Your task to perform on an android device: Clear all items from cart on walmart. Add acer nitro to the cart on walmart, then select checkout. Image 0: 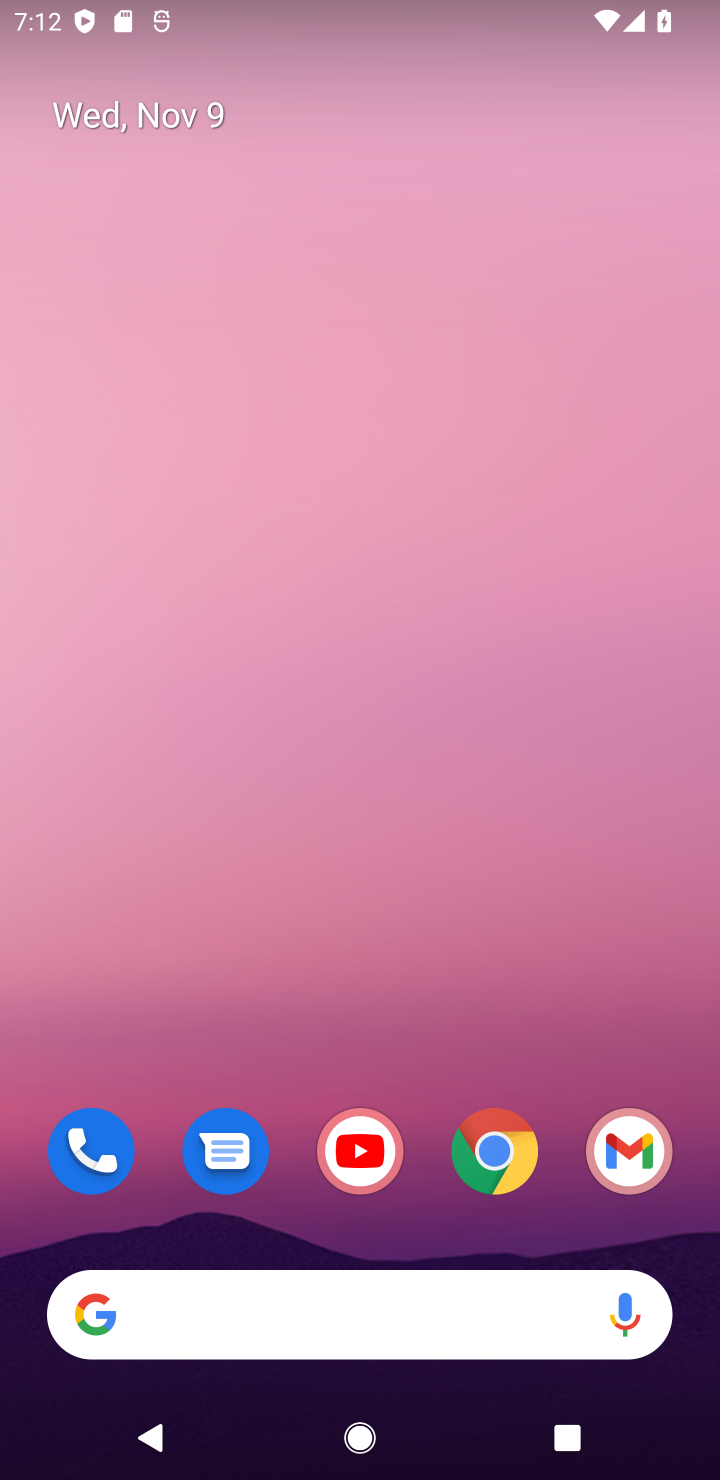
Step 0: drag from (547, 722) to (644, 234)
Your task to perform on an android device: Clear all items from cart on walmart. Add acer nitro to the cart on walmart, then select checkout. Image 1: 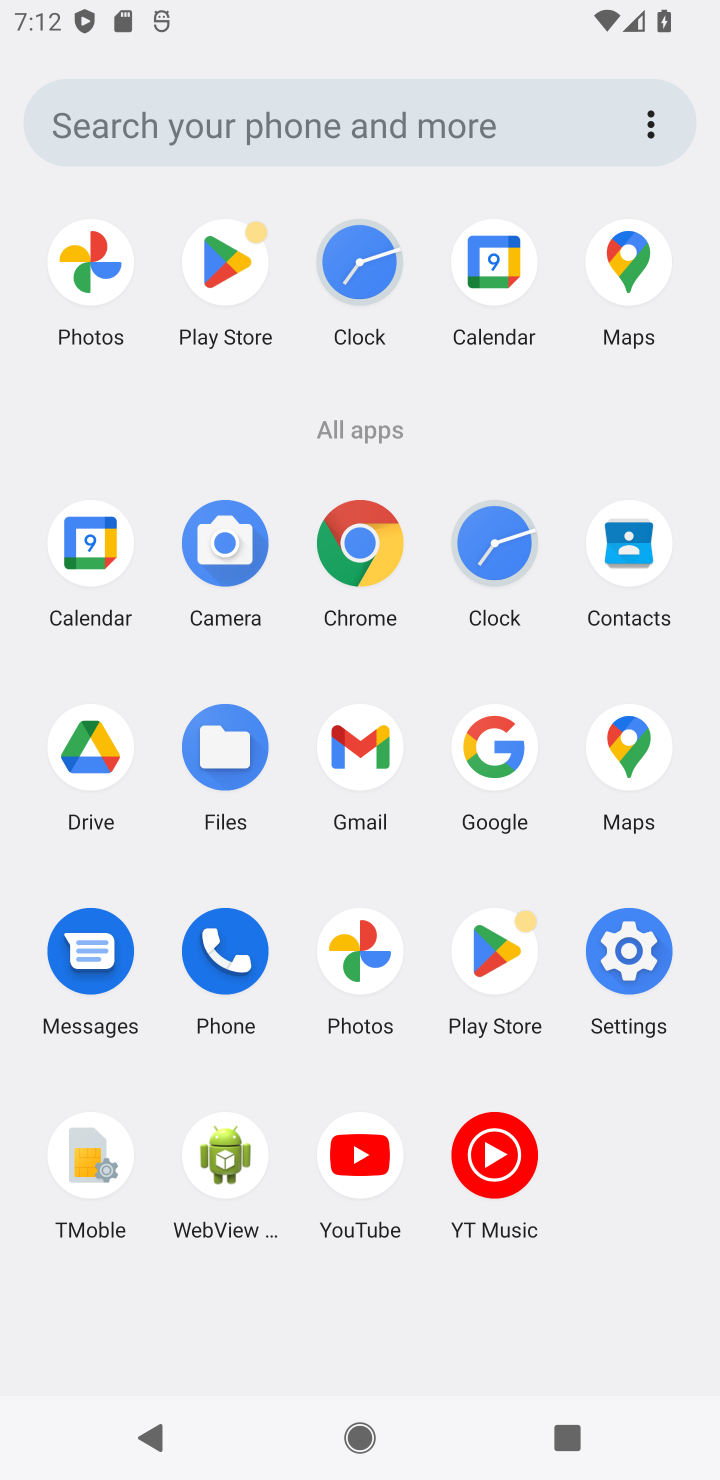
Step 1: click (356, 562)
Your task to perform on an android device: Clear all items from cart on walmart. Add acer nitro to the cart on walmart, then select checkout. Image 2: 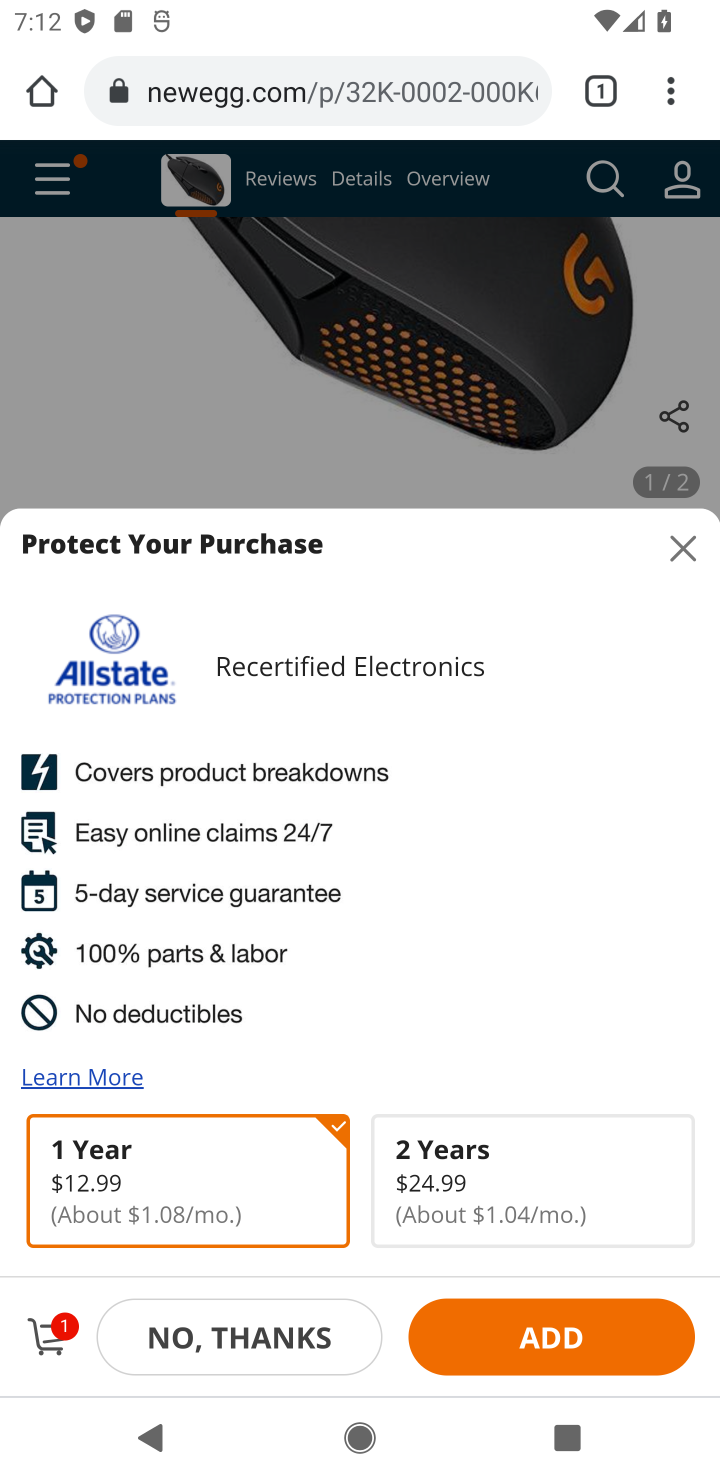
Step 2: click (235, 96)
Your task to perform on an android device: Clear all items from cart on walmart. Add acer nitro to the cart on walmart, then select checkout. Image 3: 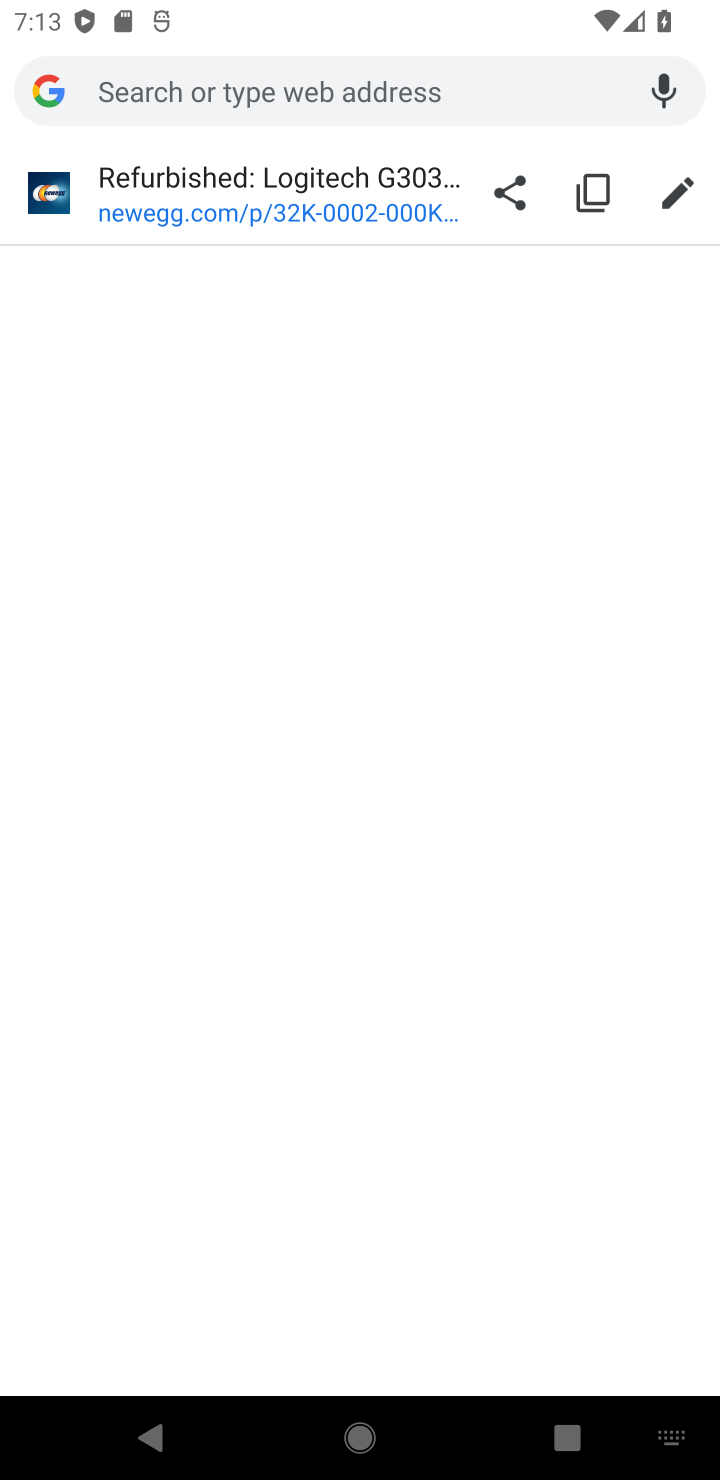
Step 3: type "walmart"
Your task to perform on an android device: Clear all items from cart on walmart. Add acer nitro to the cart on walmart, then select checkout. Image 4: 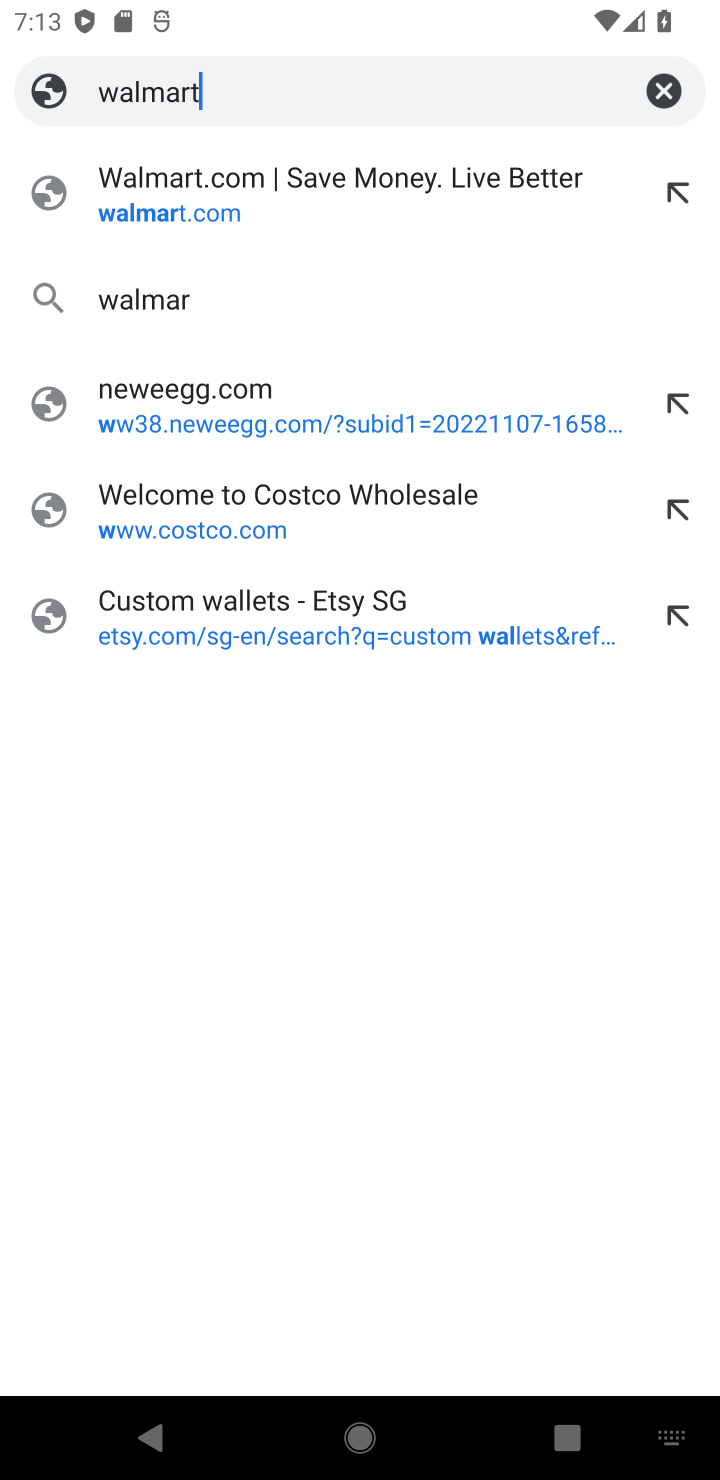
Step 4: press enter
Your task to perform on an android device: Clear all items from cart on walmart. Add acer nitro to the cart on walmart, then select checkout. Image 5: 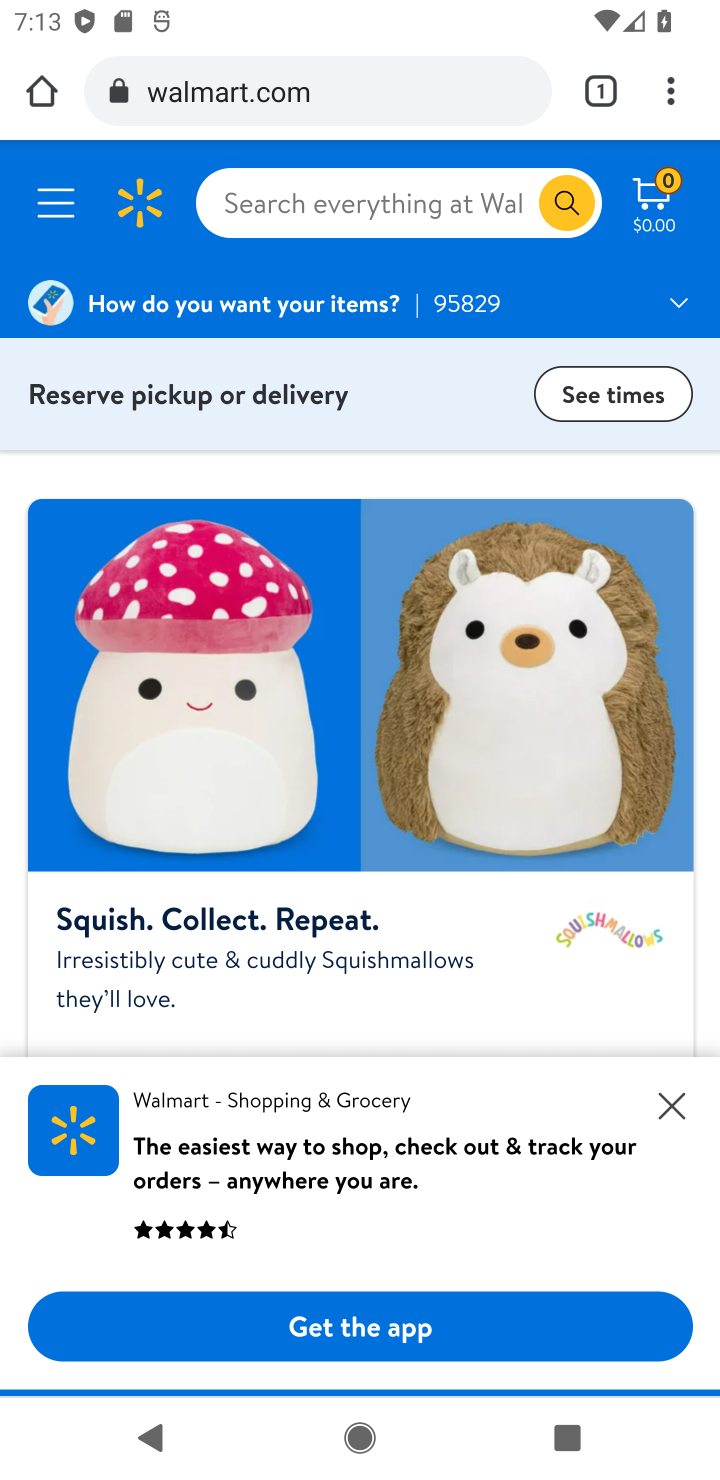
Step 5: click (266, 207)
Your task to perform on an android device: Clear all items from cart on walmart. Add acer nitro to the cart on walmart, then select checkout. Image 6: 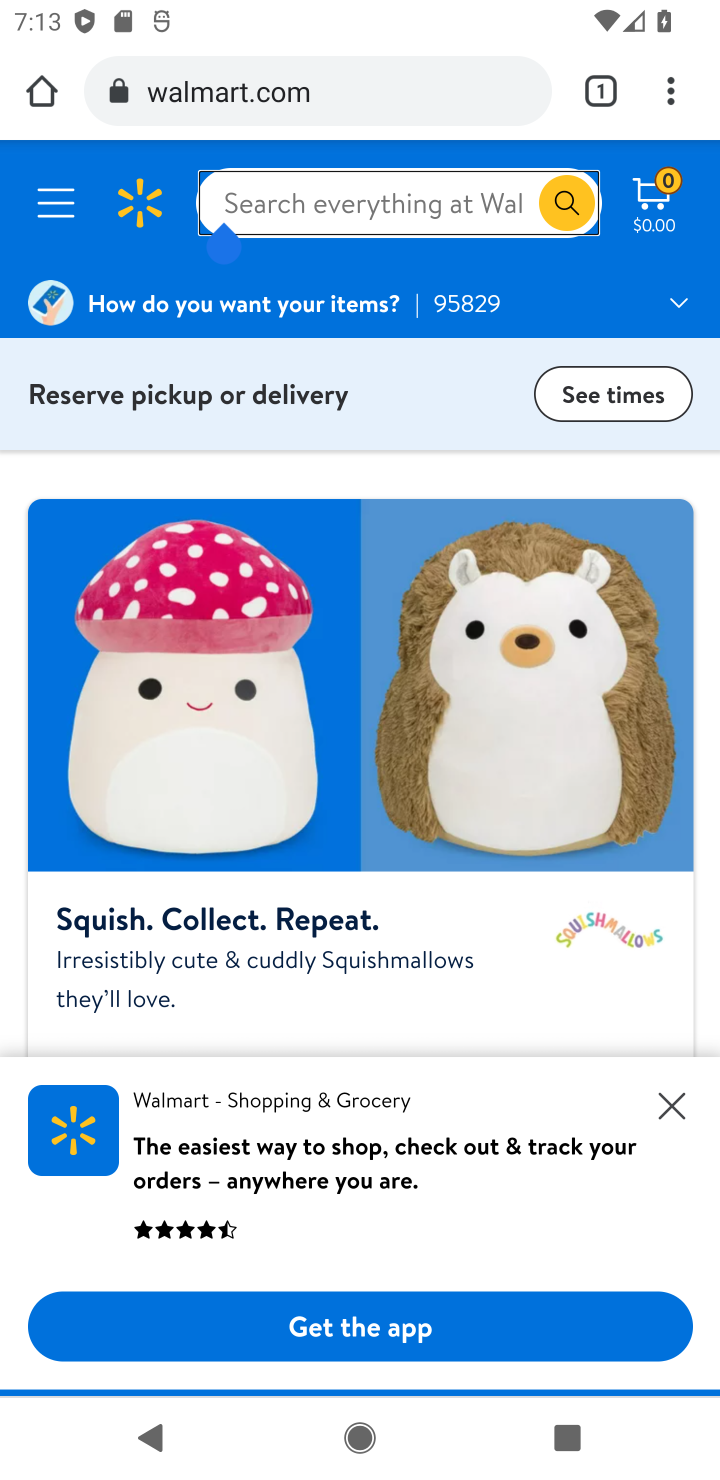
Step 6: type "acer nitro"
Your task to perform on an android device: Clear all items from cart on walmart. Add acer nitro to the cart on walmart, then select checkout. Image 7: 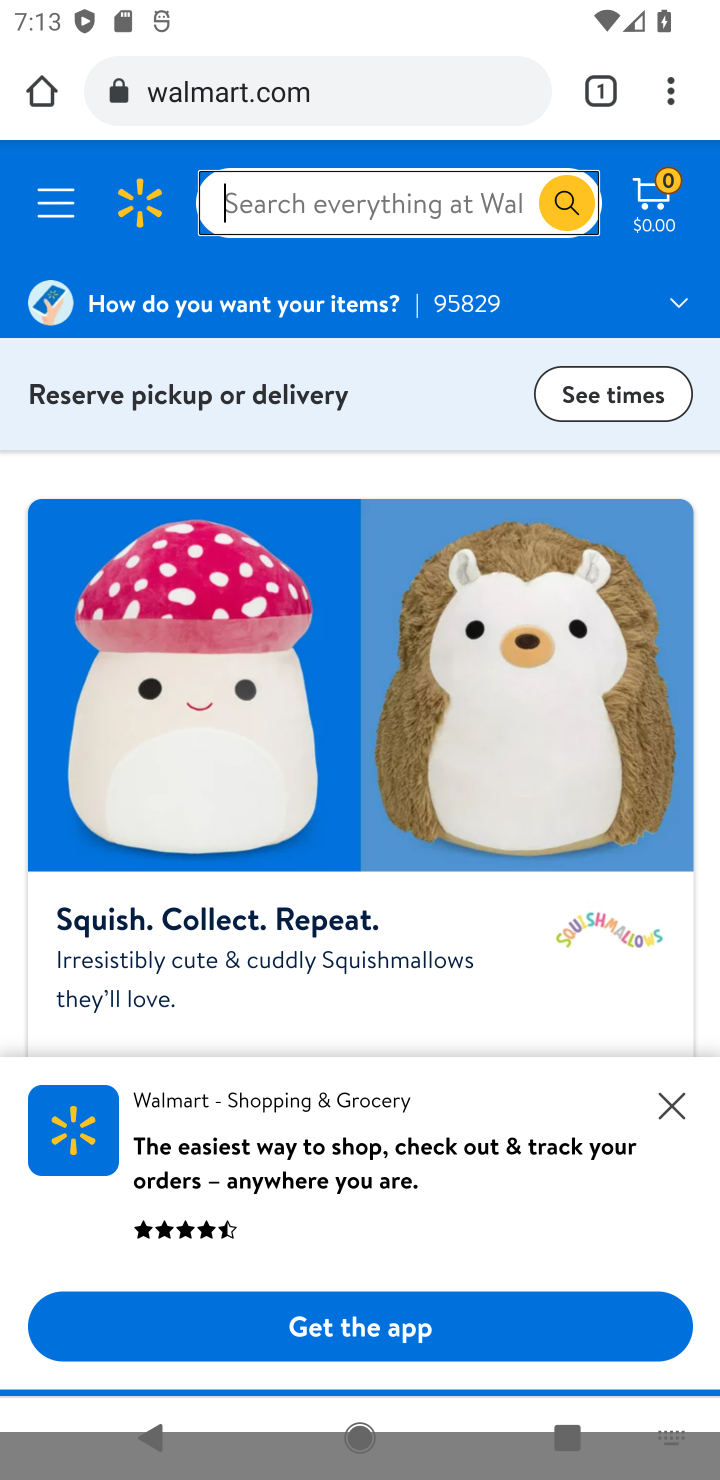
Step 7: press enter
Your task to perform on an android device: Clear all items from cart on walmart. Add acer nitro to the cart on walmart, then select checkout. Image 8: 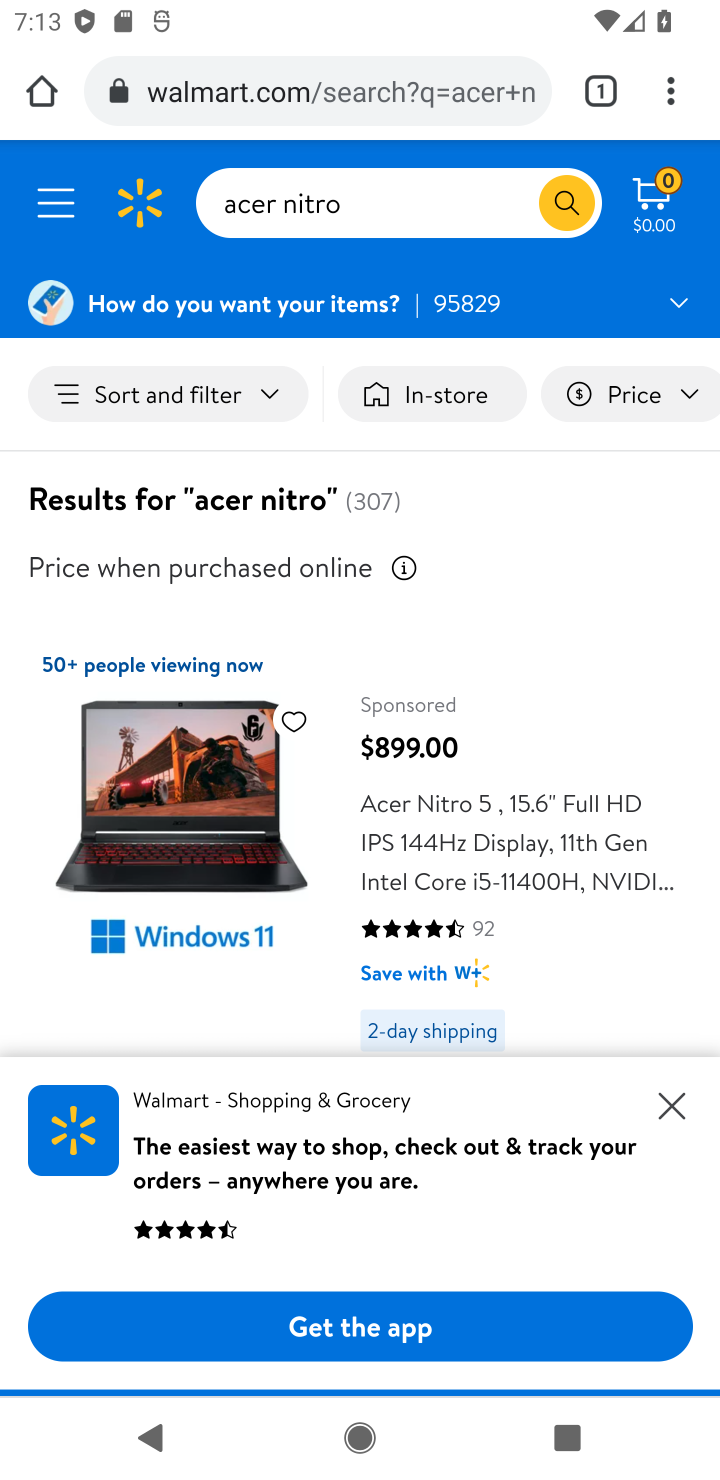
Step 8: click (670, 1124)
Your task to perform on an android device: Clear all items from cart on walmart. Add acer nitro to the cart on walmart, then select checkout. Image 9: 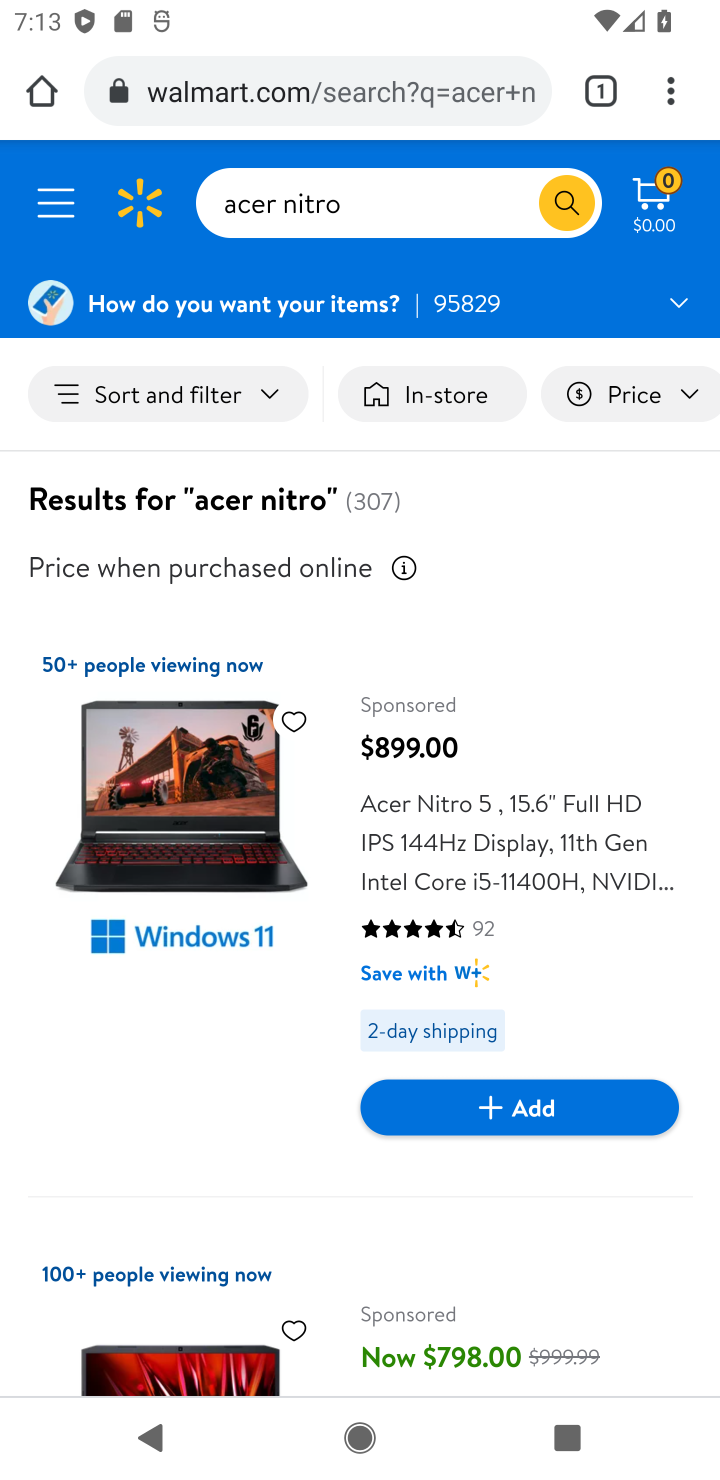
Step 9: click (514, 1113)
Your task to perform on an android device: Clear all items from cart on walmart. Add acer nitro to the cart on walmart, then select checkout. Image 10: 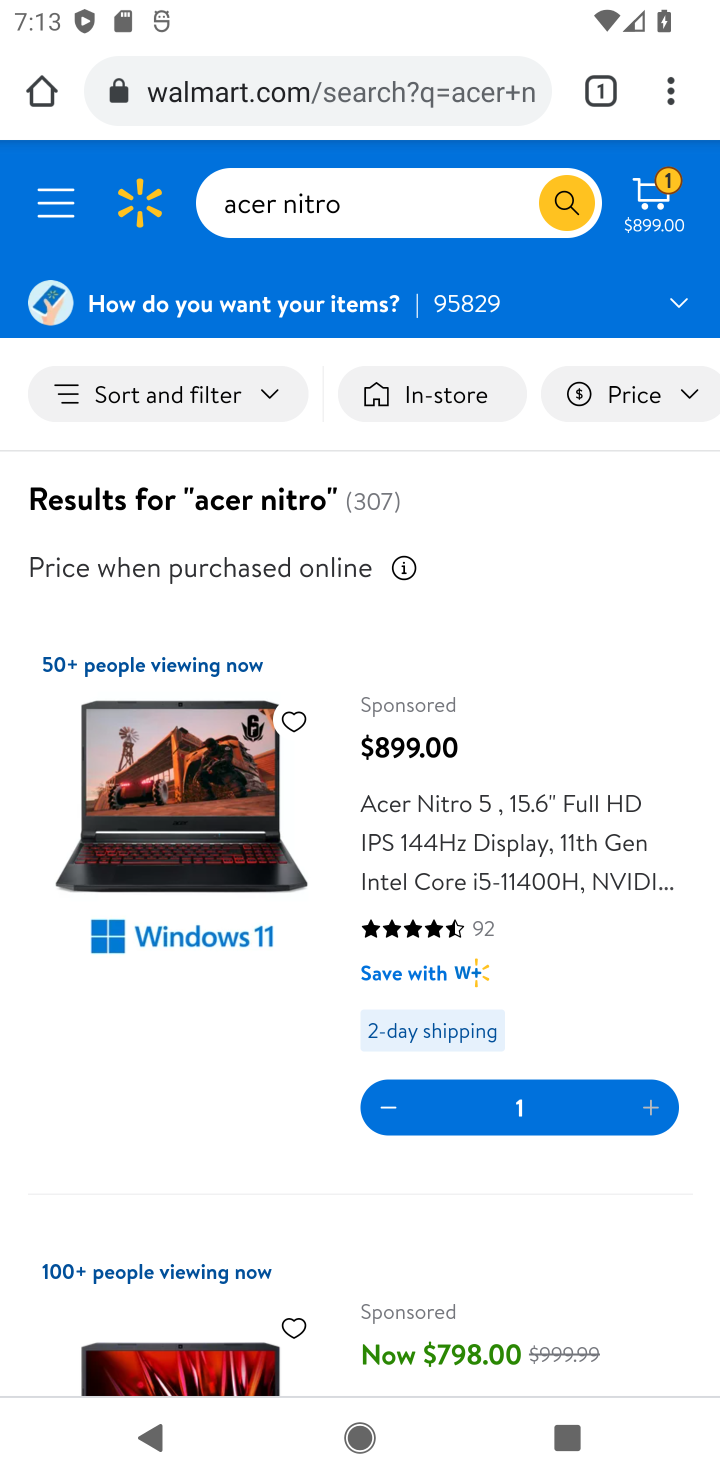
Step 10: click (669, 196)
Your task to perform on an android device: Clear all items from cart on walmart. Add acer nitro to the cart on walmart, then select checkout. Image 11: 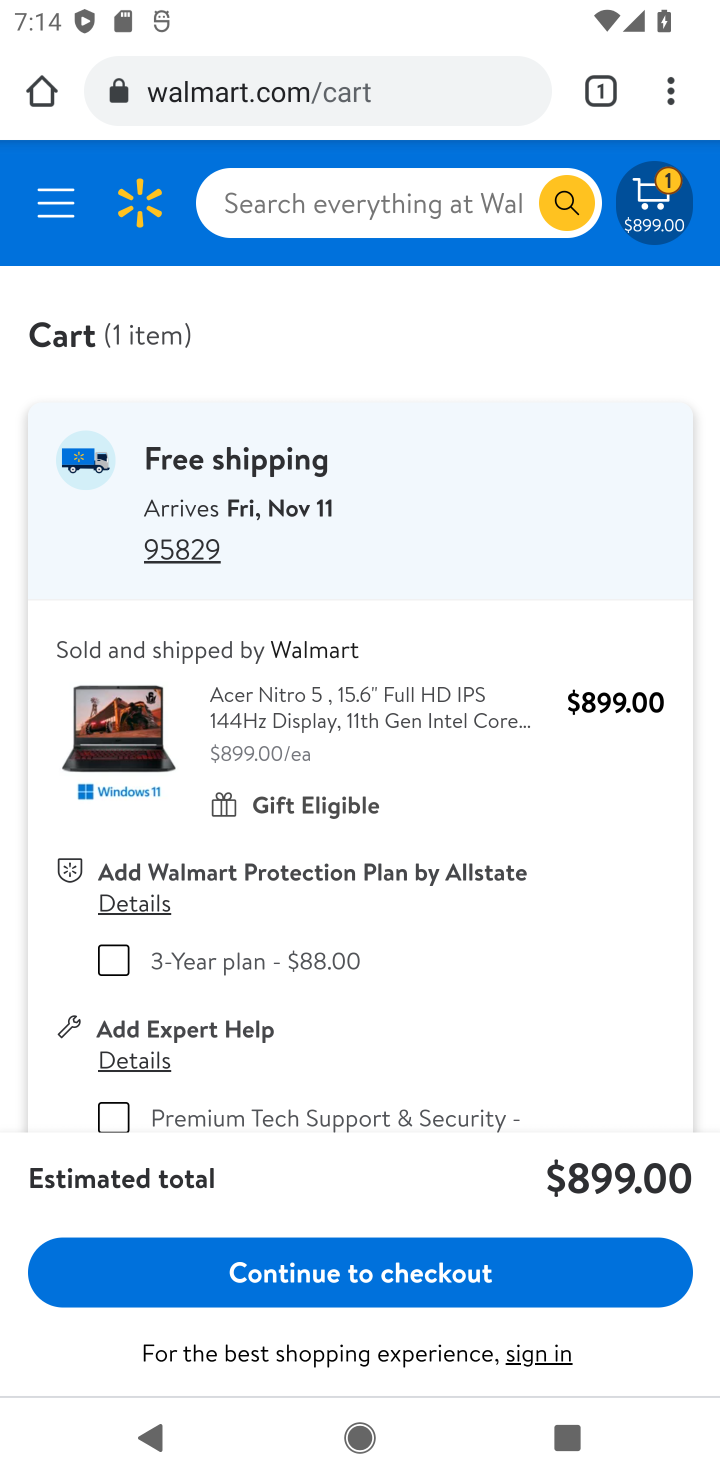
Step 11: click (318, 1274)
Your task to perform on an android device: Clear all items from cart on walmart. Add acer nitro to the cart on walmart, then select checkout. Image 12: 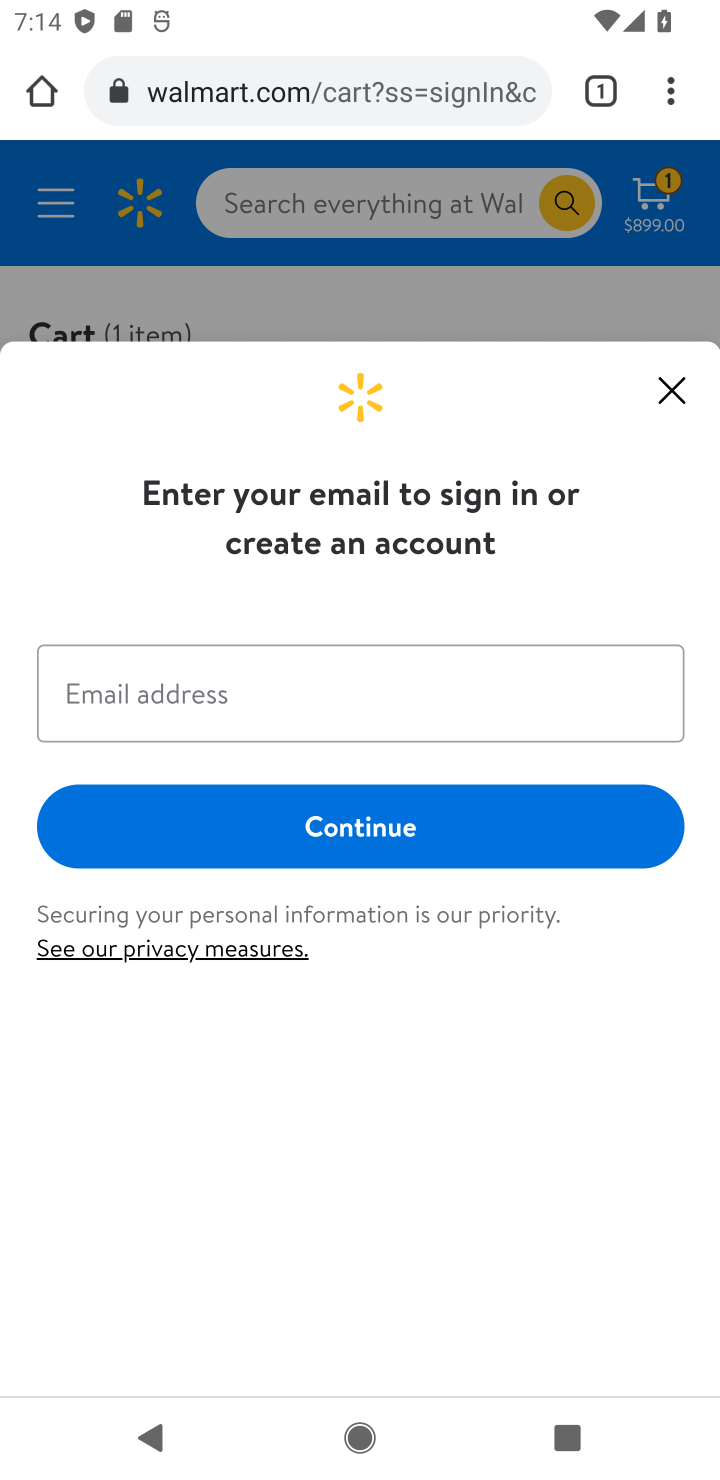
Step 12: task complete